Your task to perform on an android device: change timer sound Image 0: 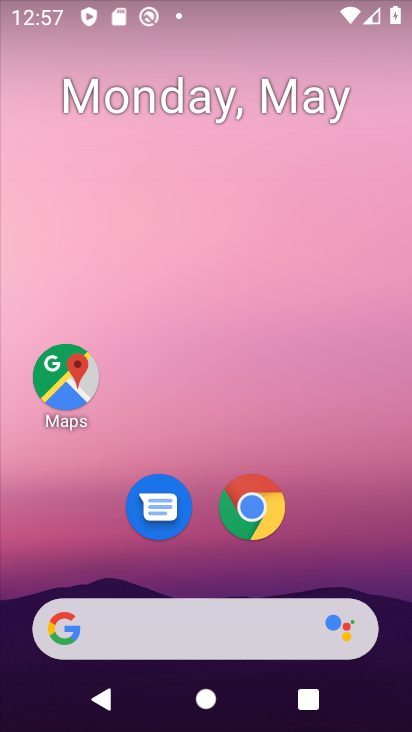
Step 0: drag from (323, 377) to (330, 85)
Your task to perform on an android device: change timer sound Image 1: 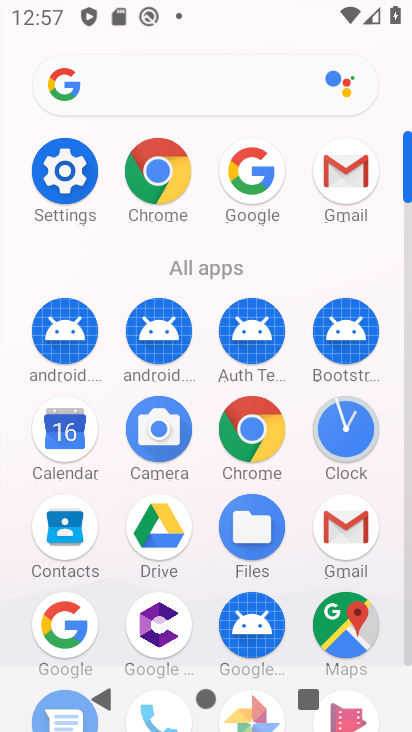
Step 1: click (343, 423)
Your task to perform on an android device: change timer sound Image 2: 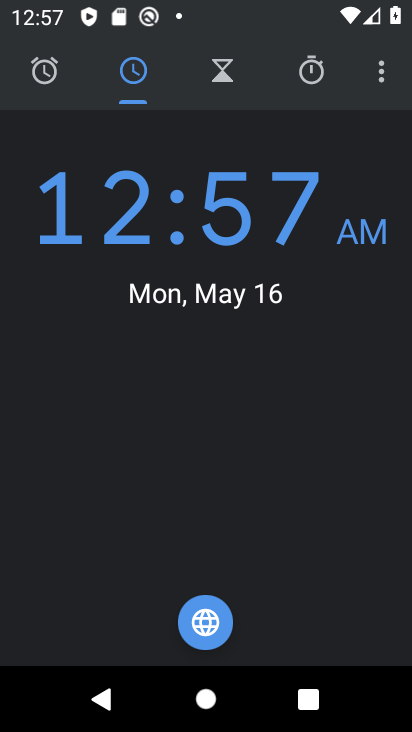
Step 2: click (379, 73)
Your task to perform on an android device: change timer sound Image 3: 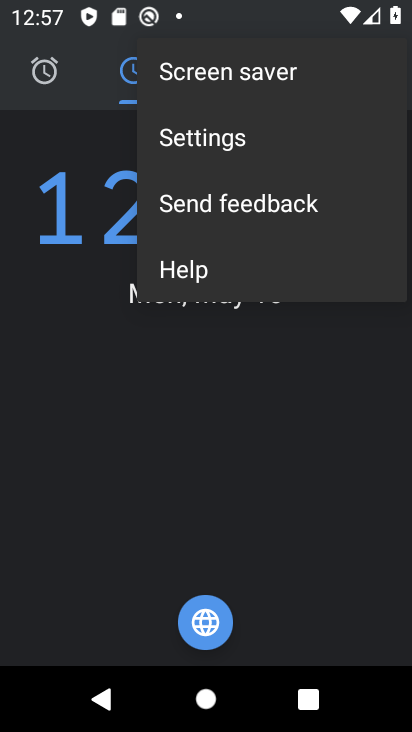
Step 3: click (218, 146)
Your task to perform on an android device: change timer sound Image 4: 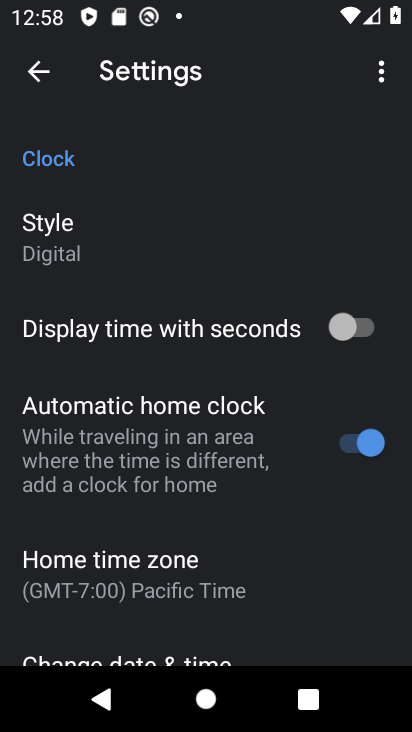
Step 4: drag from (220, 559) to (252, 57)
Your task to perform on an android device: change timer sound Image 5: 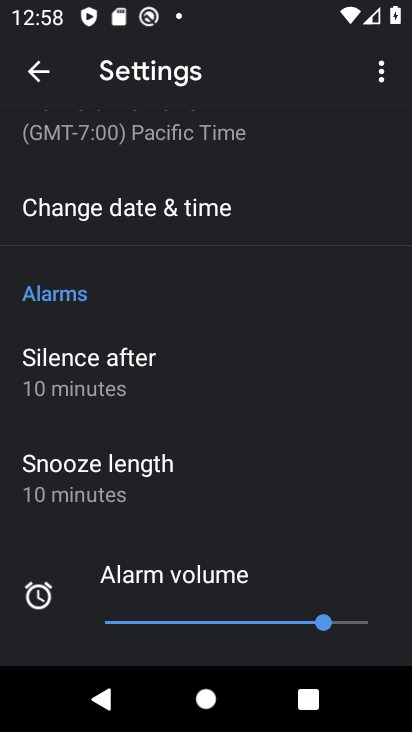
Step 5: drag from (189, 518) to (372, 105)
Your task to perform on an android device: change timer sound Image 6: 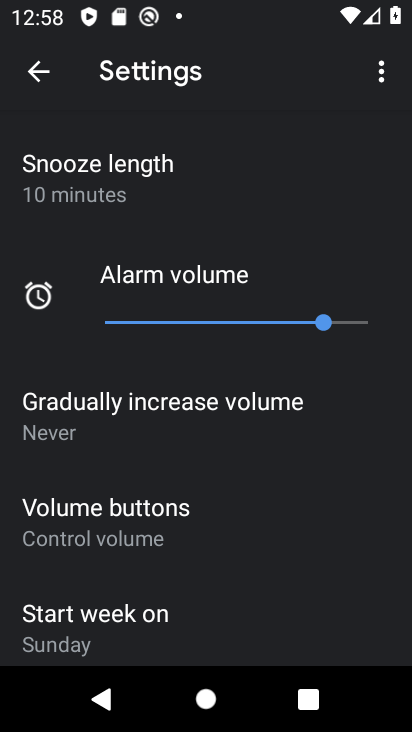
Step 6: drag from (200, 625) to (337, 182)
Your task to perform on an android device: change timer sound Image 7: 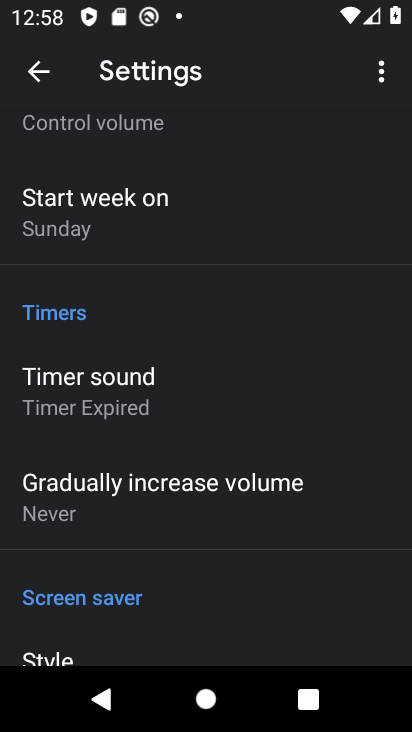
Step 7: click (135, 412)
Your task to perform on an android device: change timer sound Image 8: 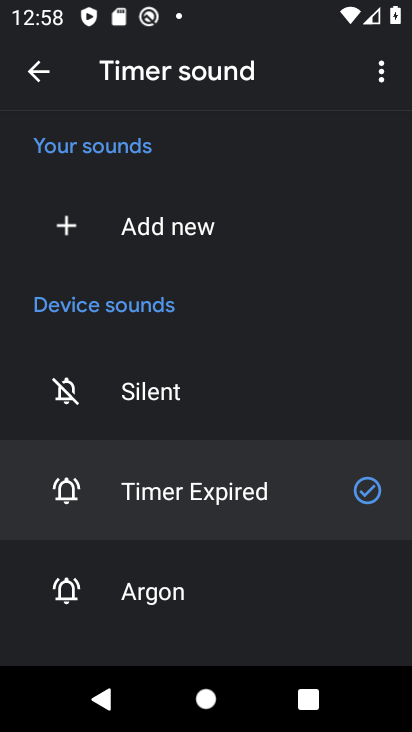
Step 8: click (215, 556)
Your task to perform on an android device: change timer sound Image 9: 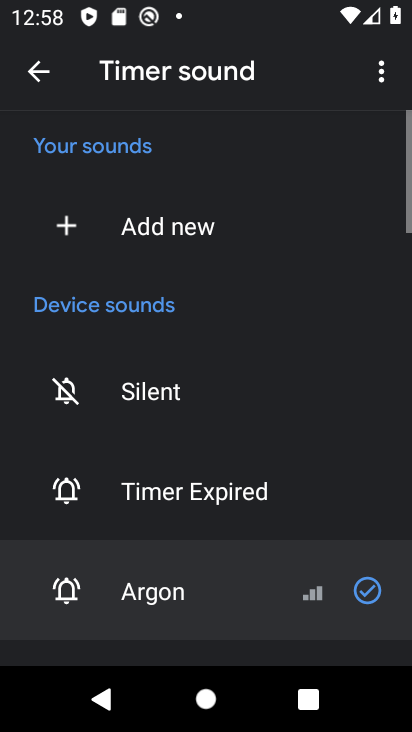
Step 9: task complete